Your task to perform on an android device: Open internet settings Image 0: 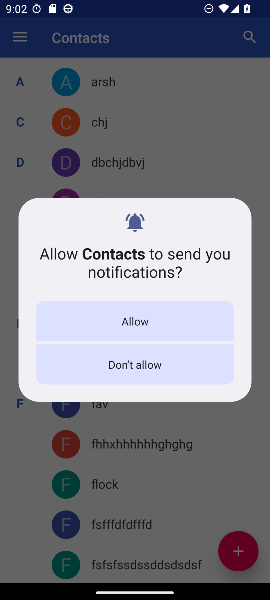
Step 0: press home button
Your task to perform on an android device: Open internet settings Image 1: 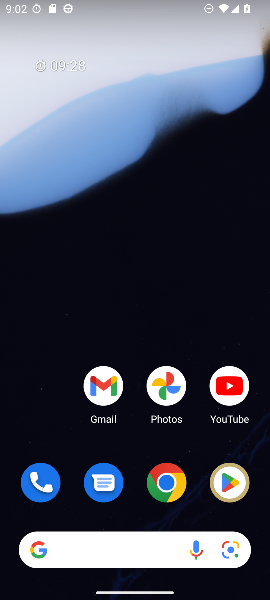
Step 1: drag from (126, 352) to (173, 1)
Your task to perform on an android device: Open internet settings Image 2: 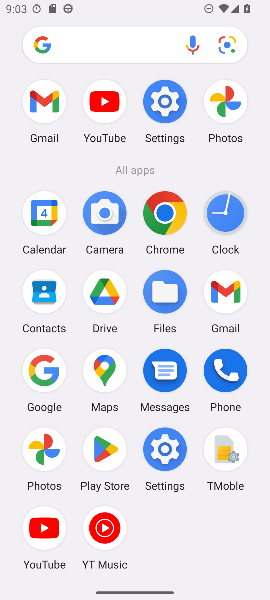
Step 2: click (160, 103)
Your task to perform on an android device: Open internet settings Image 3: 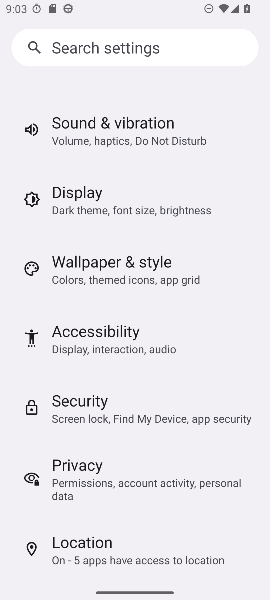
Step 3: drag from (73, 121) to (214, 594)
Your task to perform on an android device: Open internet settings Image 4: 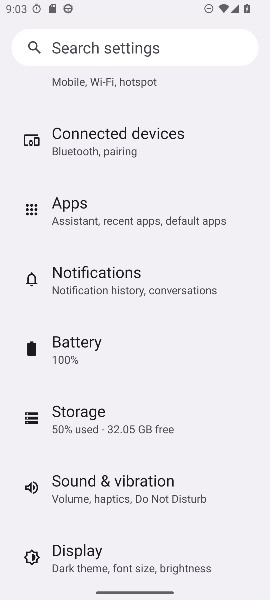
Step 4: drag from (73, 77) to (116, 586)
Your task to perform on an android device: Open internet settings Image 5: 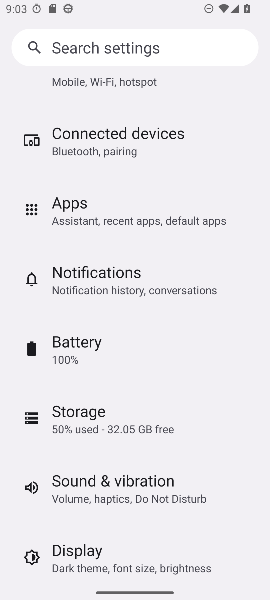
Step 5: click (87, 85)
Your task to perform on an android device: Open internet settings Image 6: 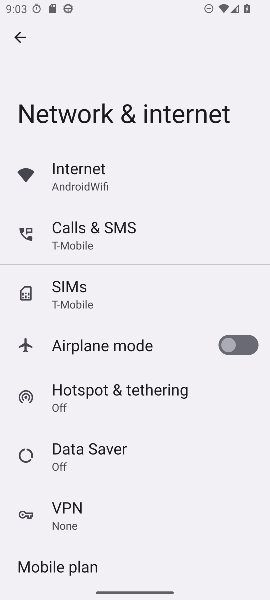
Step 6: click (97, 169)
Your task to perform on an android device: Open internet settings Image 7: 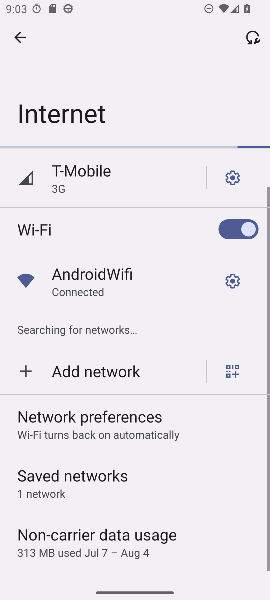
Step 7: task complete